Your task to perform on an android device: turn on priority inbox in the gmail app Image 0: 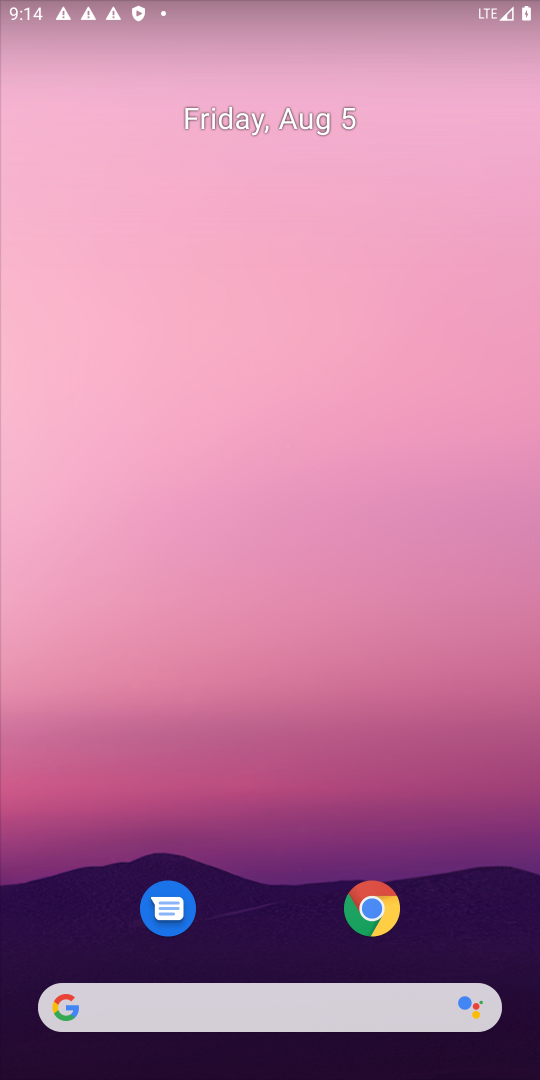
Step 0: drag from (478, 920) to (408, 231)
Your task to perform on an android device: turn on priority inbox in the gmail app Image 1: 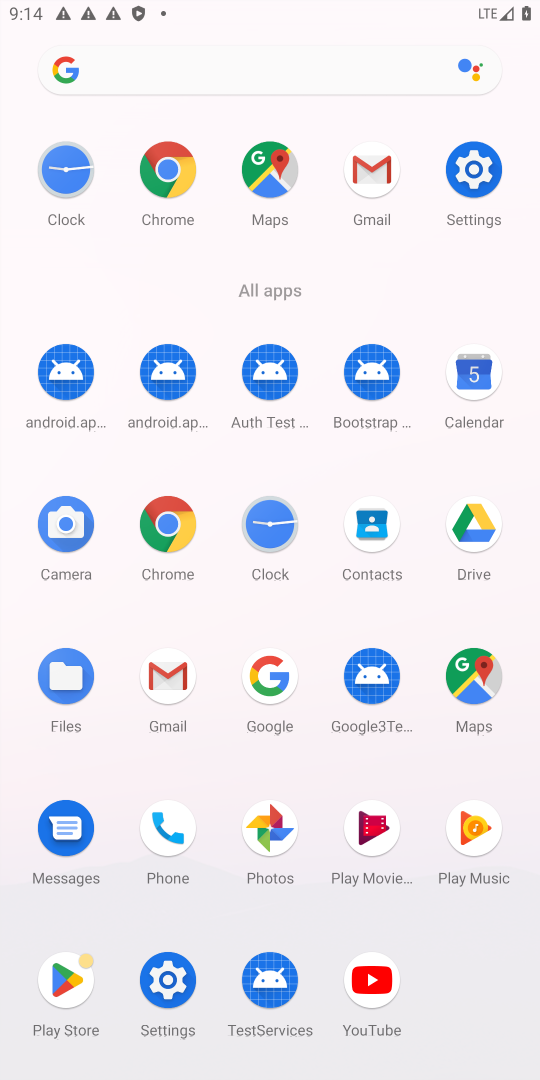
Step 1: click (364, 169)
Your task to perform on an android device: turn on priority inbox in the gmail app Image 2: 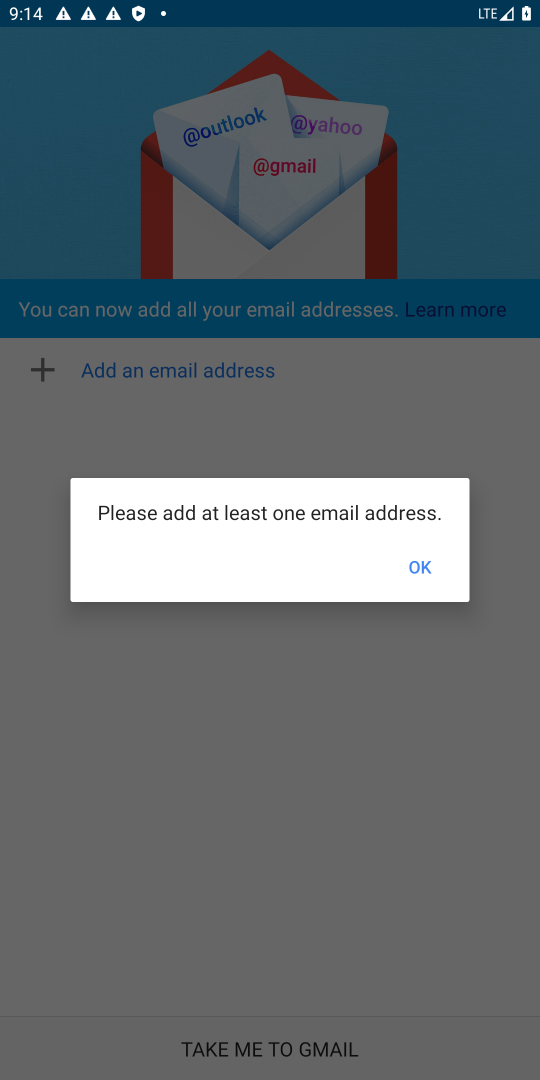
Step 2: task complete